Your task to perform on an android device: Add "dell xps" to the cart on ebay.com Image 0: 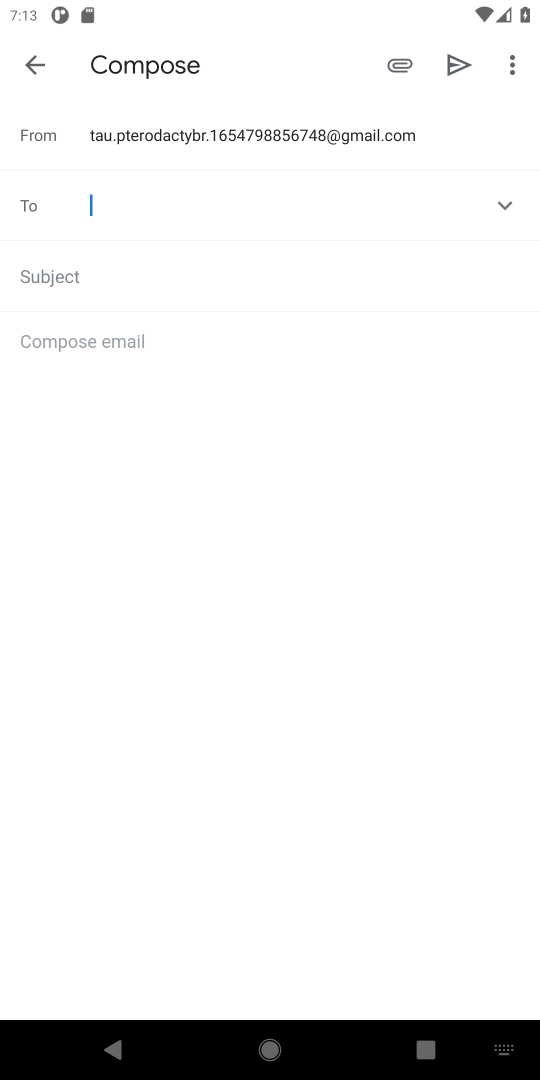
Step 0: press home button
Your task to perform on an android device: Add "dell xps" to the cart on ebay.com Image 1: 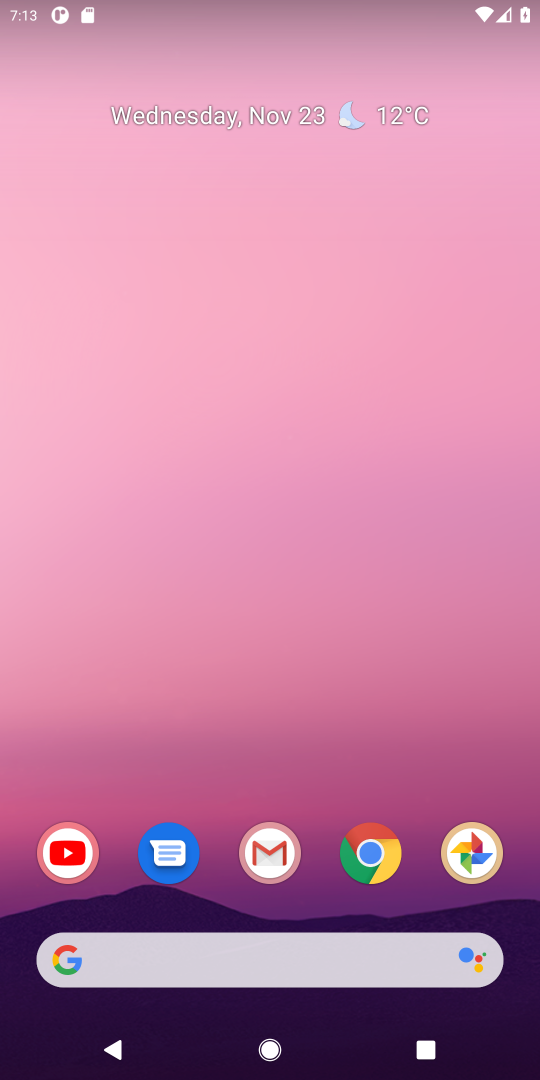
Step 1: click (371, 849)
Your task to perform on an android device: Add "dell xps" to the cart on ebay.com Image 2: 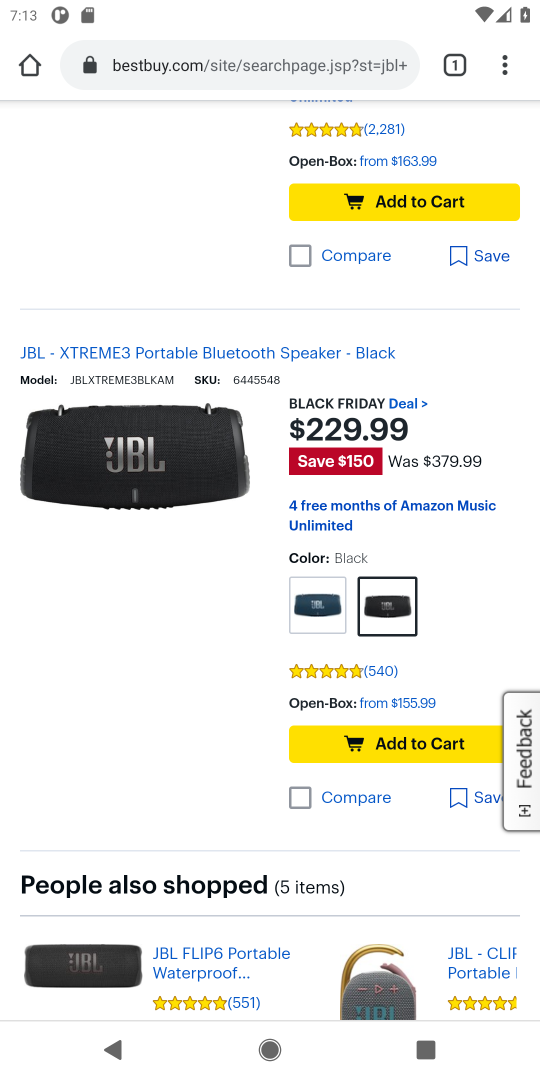
Step 2: click (154, 57)
Your task to perform on an android device: Add "dell xps" to the cart on ebay.com Image 3: 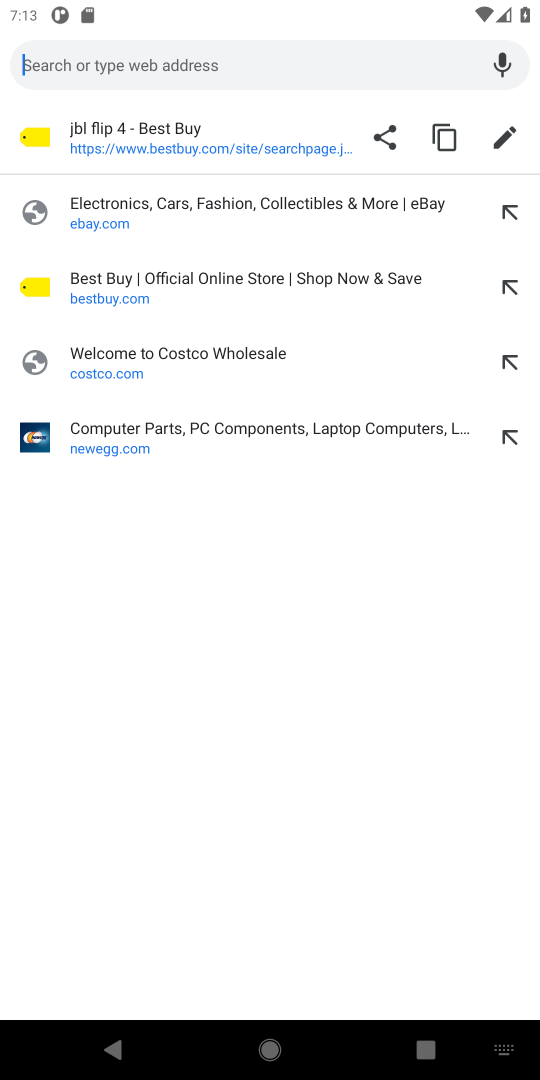
Step 3: click (84, 212)
Your task to perform on an android device: Add "dell xps" to the cart on ebay.com Image 4: 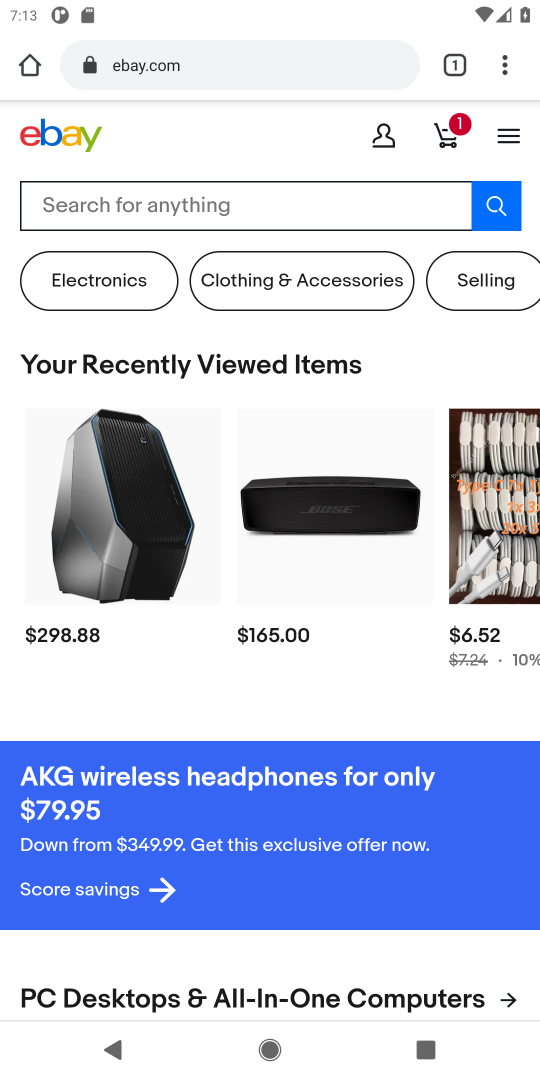
Step 4: click (101, 201)
Your task to perform on an android device: Add "dell xps" to the cart on ebay.com Image 5: 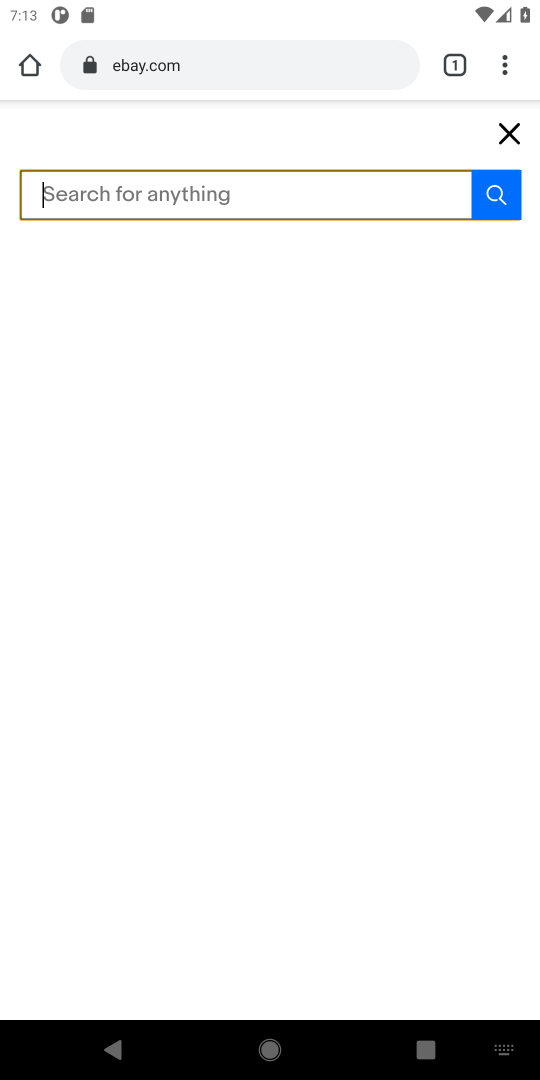
Step 5: type "dell xps"
Your task to perform on an android device: Add "dell xps" to the cart on ebay.com Image 6: 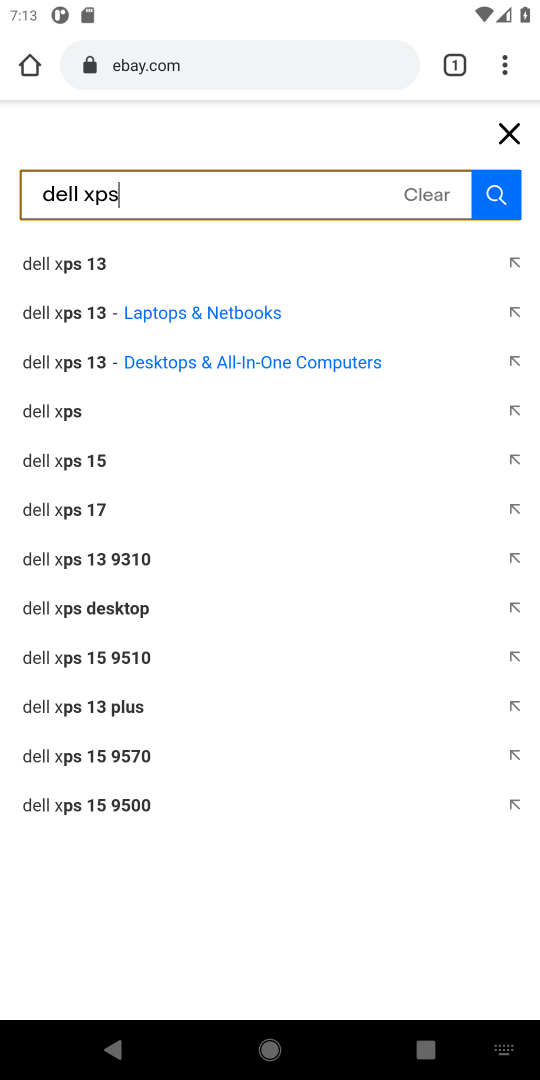
Step 6: click (42, 418)
Your task to perform on an android device: Add "dell xps" to the cart on ebay.com Image 7: 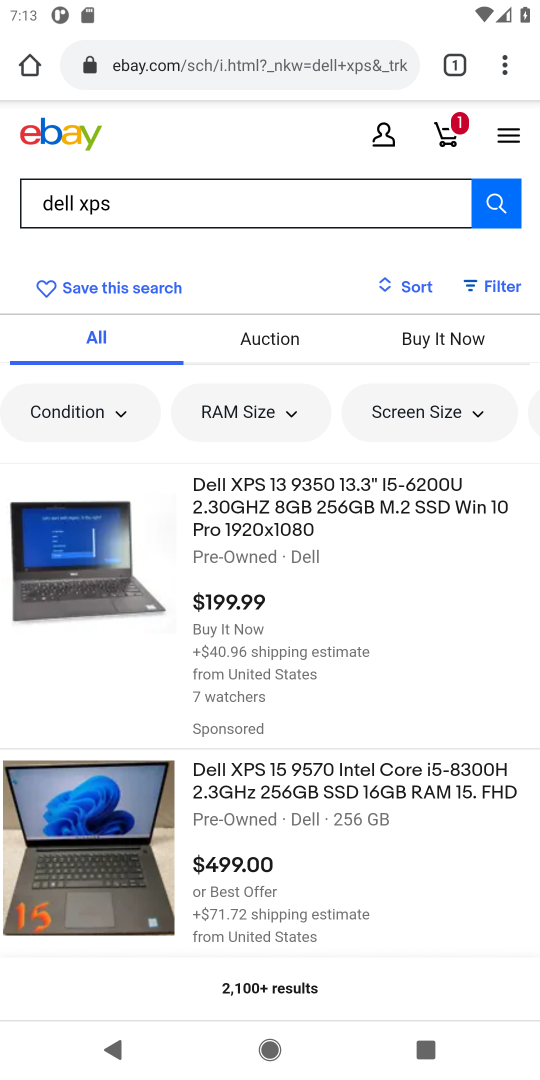
Step 7: click (95, 595)
Your task to perform on an android device: Add "dell xps" to the cart on ebay.com Image 8: 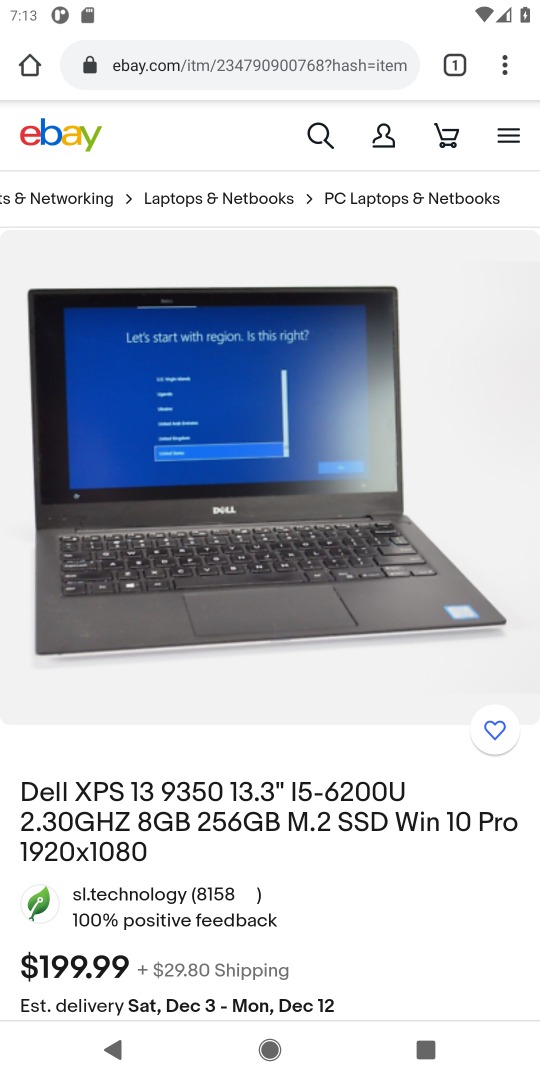
Step 8: drag from (245, 734) to (237, 309)
Your task to perform on an android device: Add "dell xps" to the cart on ebay.com Image 9: 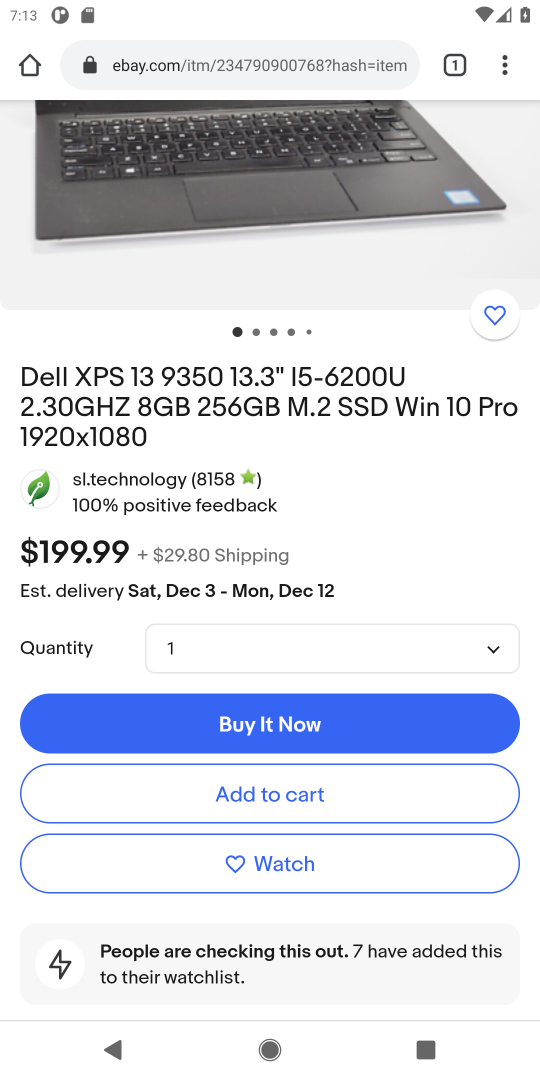
Step 9: click (268, 789)
Your task to perform on an android device: Add "dell xps" to the cart on ebay.com Image 10: 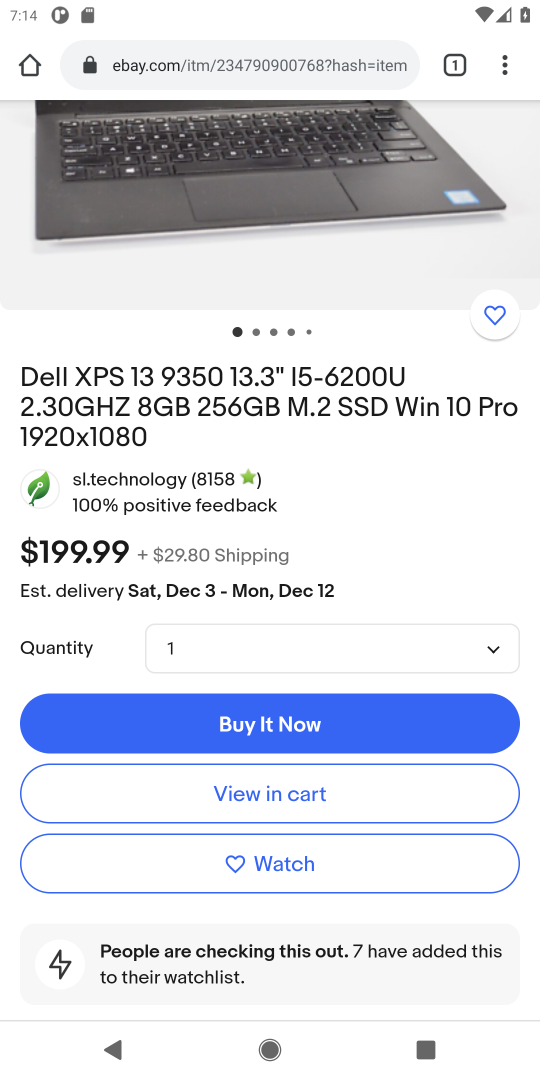
Step 10: task complete